Your task to perform on an android device: What is the recent news? Image 0: 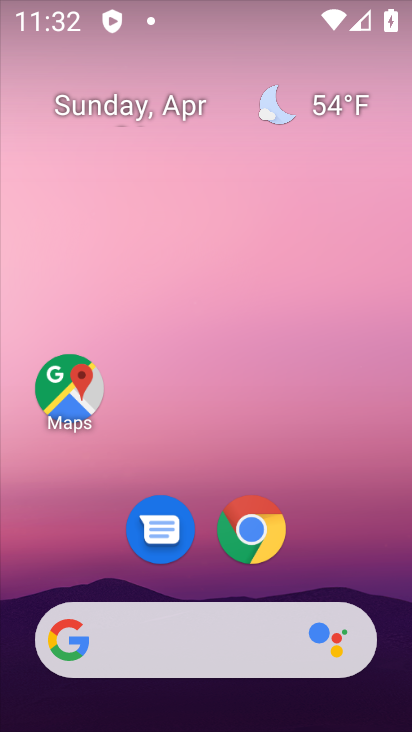
Step 0: drag from (240, 199) to (195, 103)
Your task to perform on an android device: What is the recent news? Image 1: 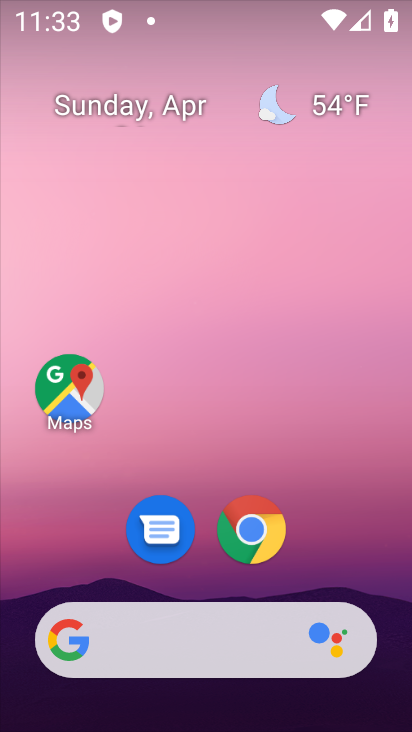
Step 1: drag from (332, 553) to (246, 24)
Your task to perform on an android device: What is the recent news? Image 2: 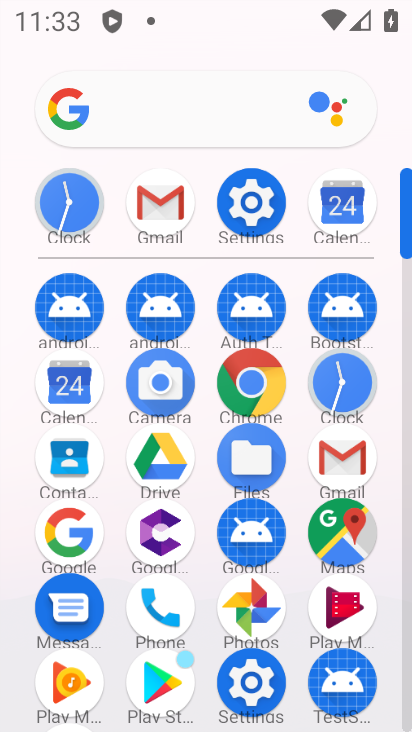
Step 2: click (59, 533)
Your task to perform on an android device: What is the recent news? Image 3: 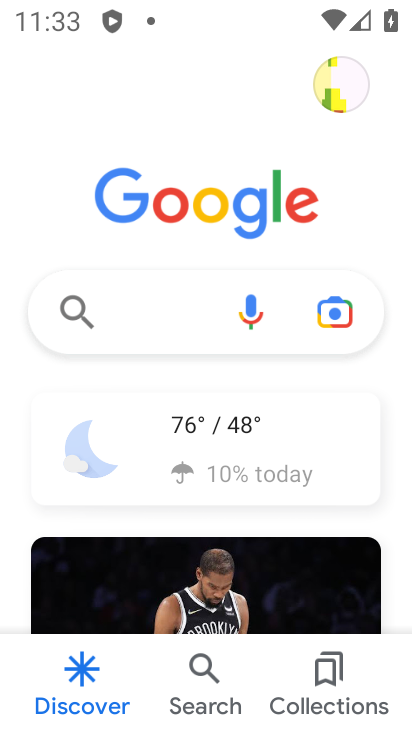
Step 3: task complete